Your task to perform on an android device: Open a new private window in Chrome Image 0: 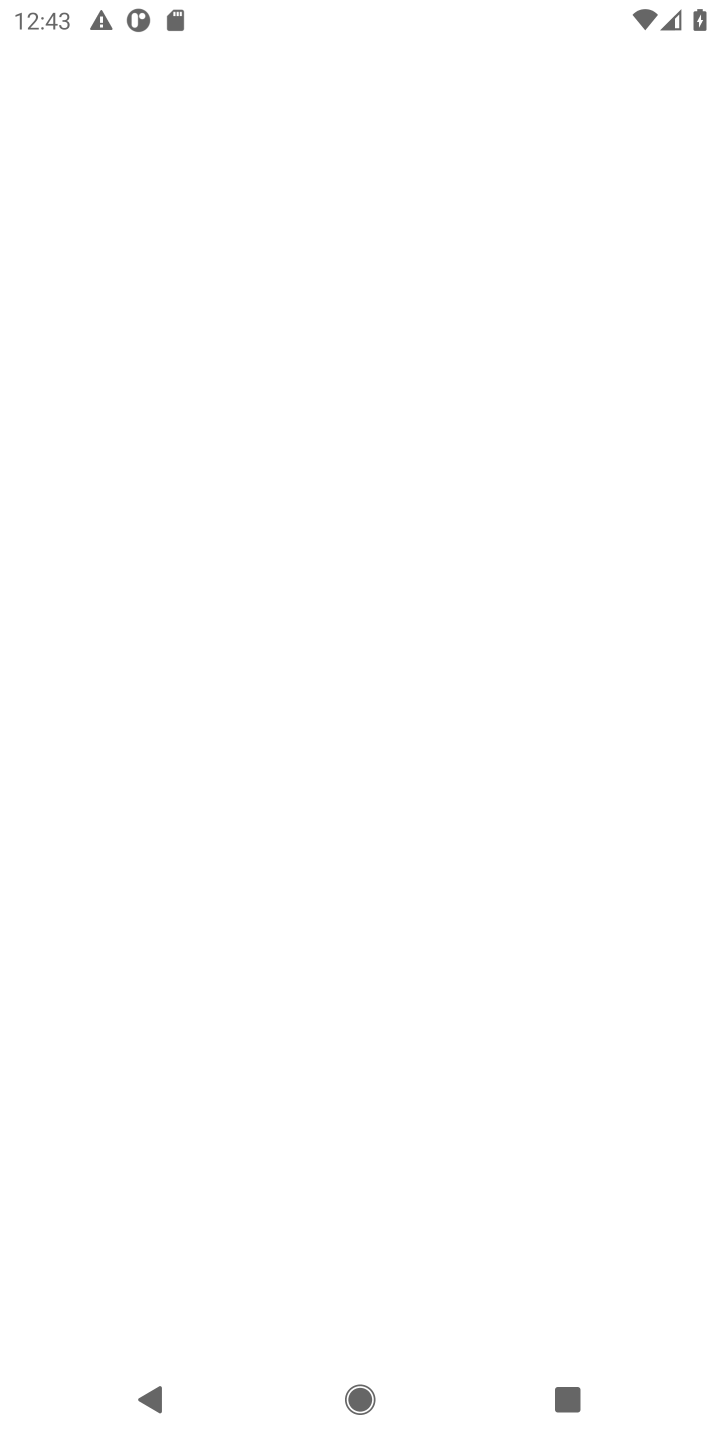
Step 0: press home button
Your task to perform on an android device: Open a new private window in Chrome Image 1: 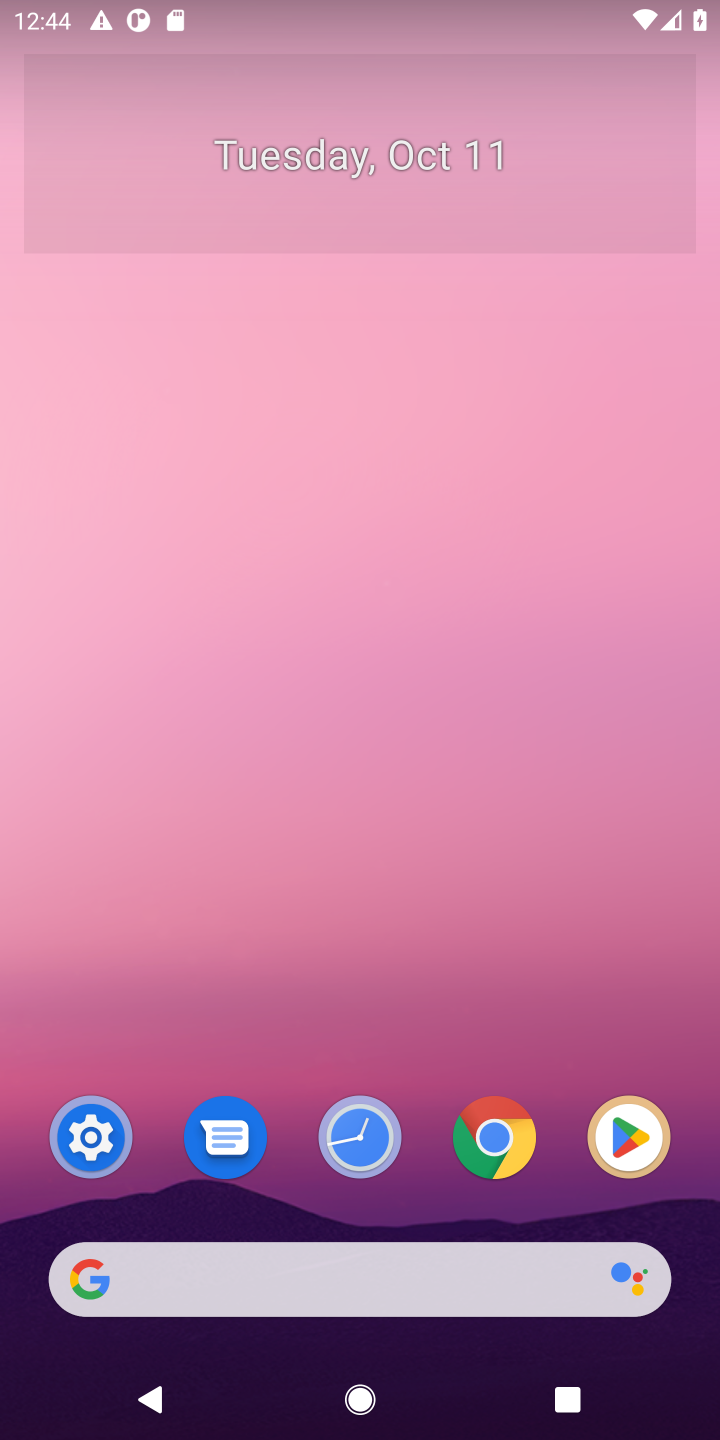
Step 1: click (497, 1151)
Your task to perform on an android device: Open a new private window in Chrome Image 2: 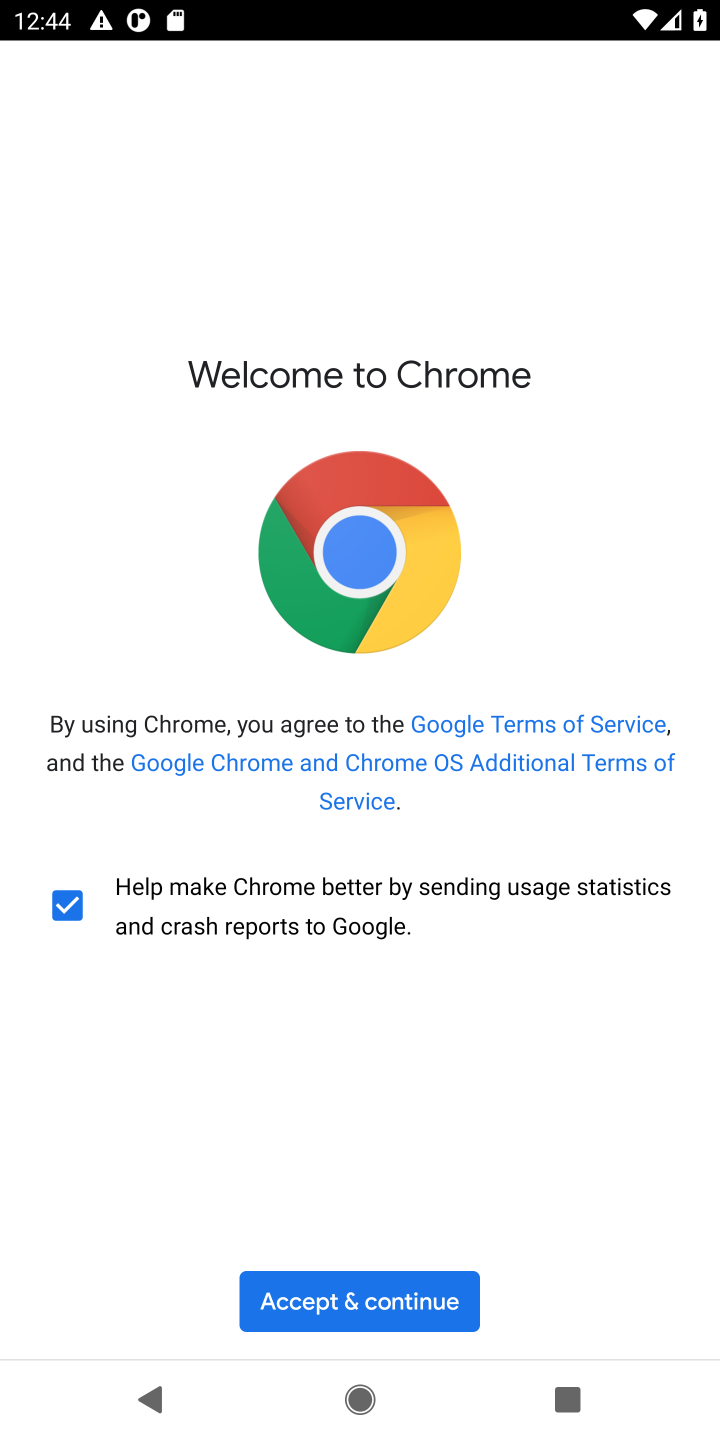
Step 2: click (408, 1291)
Your task to perform on an android device: Open a new private window in Chrome Image 3: 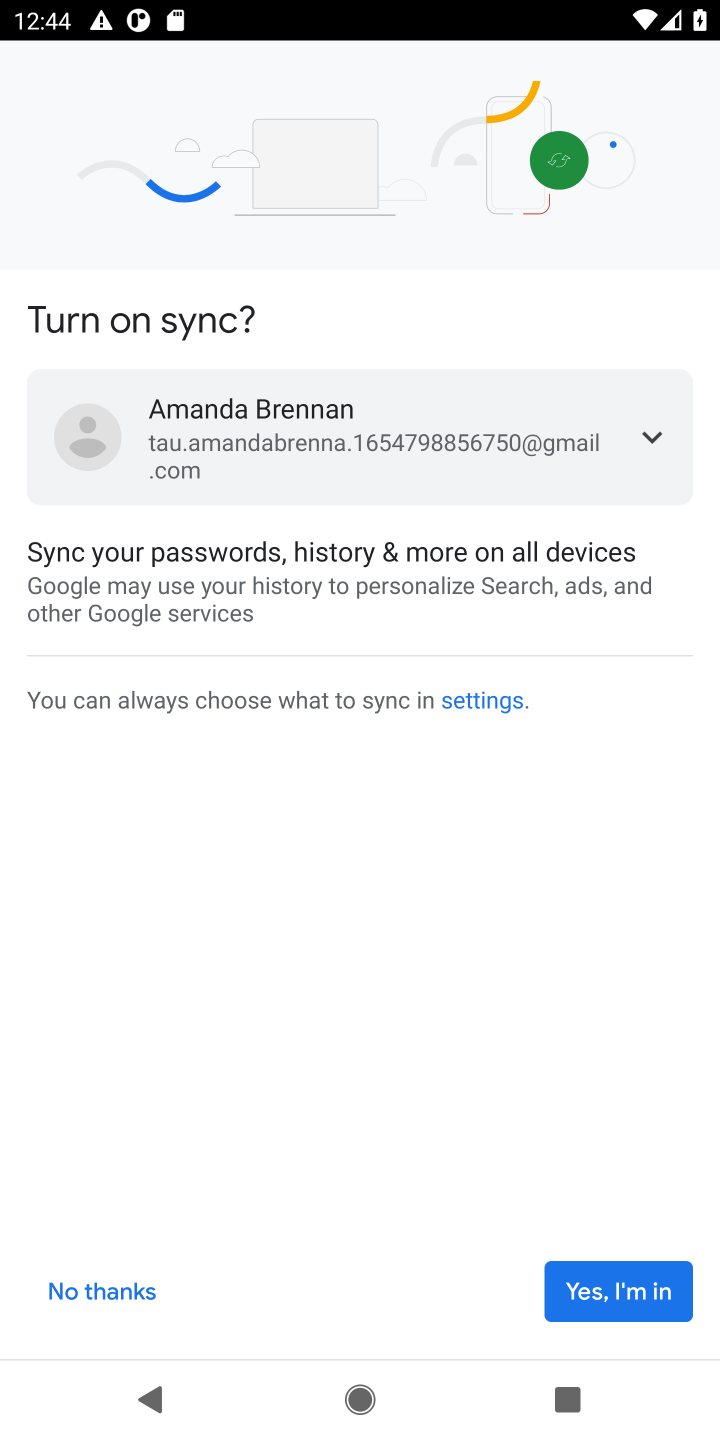
Step 3: click (596, 1291)
Your task to perform on an android device: Open a new private window in Chrome Image 4: 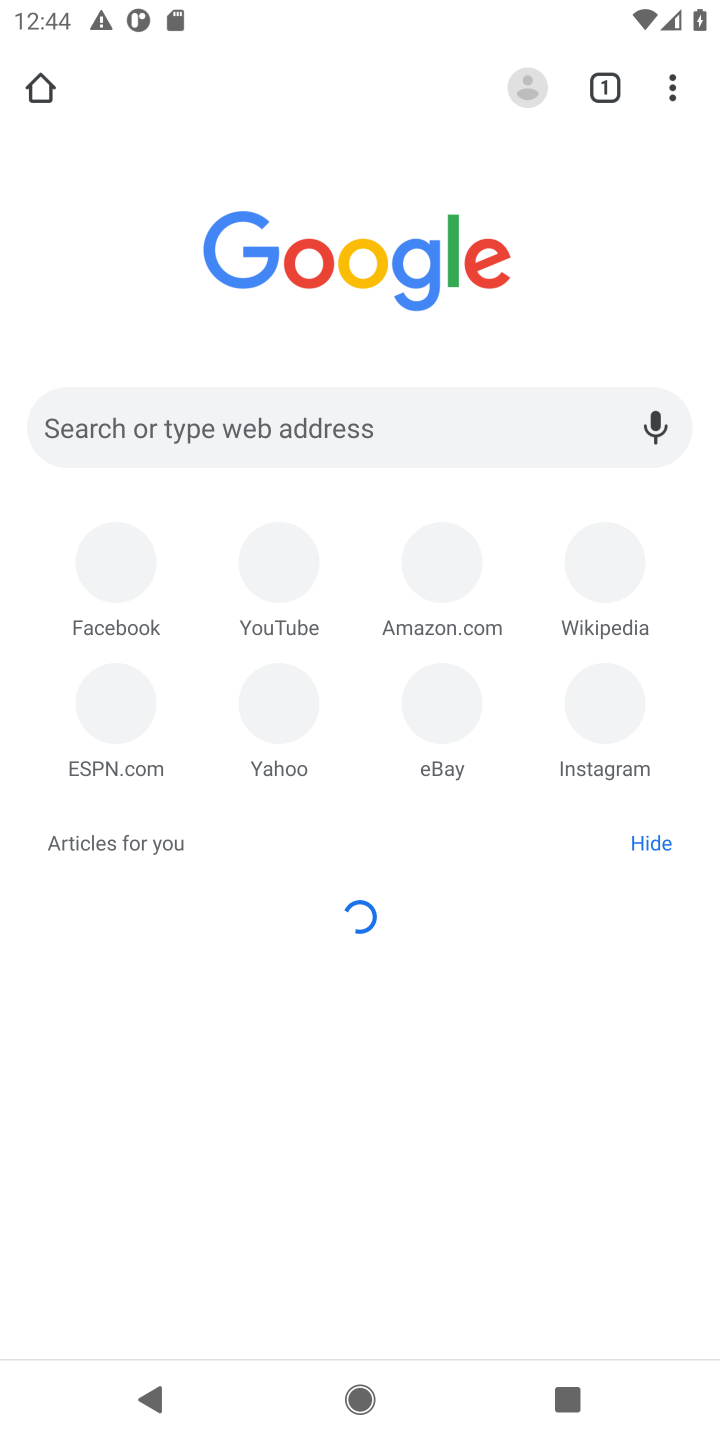
Step 4: click (605, 87)
Your task to perform on an android device: Open a new private window in Chrome Image 5: 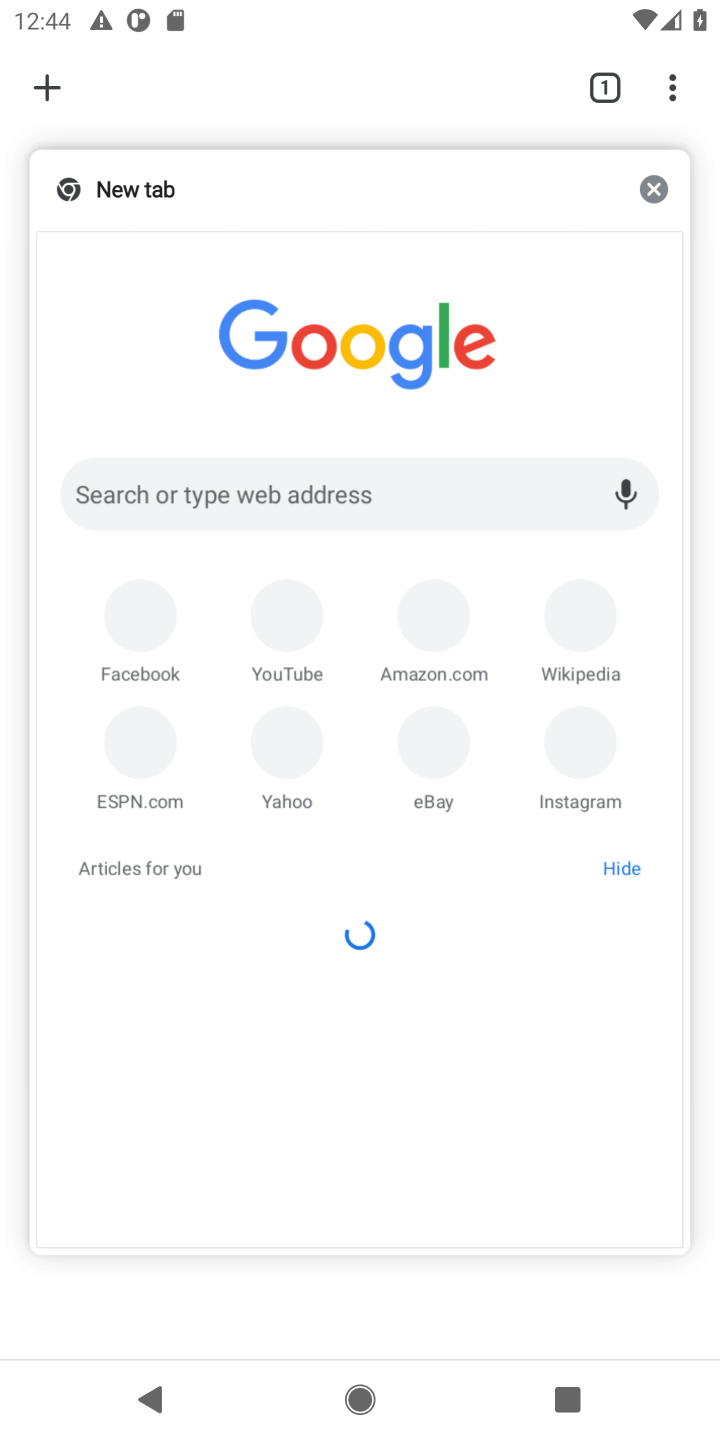
Step 5: click (59, 87)
Your task to perform on an android device: Open a new private window in Chrome Image 6: 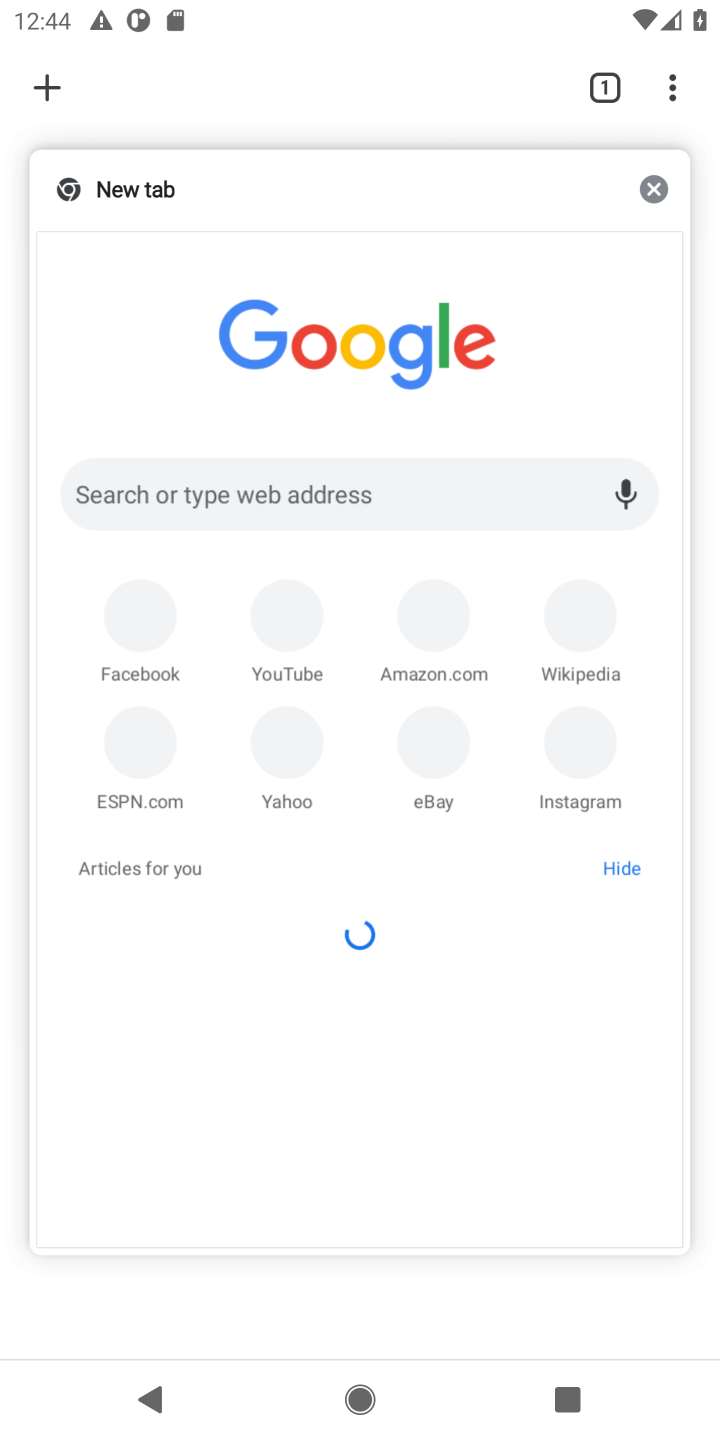
Step 6: click (41, 89)
Your task to perform on an android device: Open a new private window in Chrome Image 7: 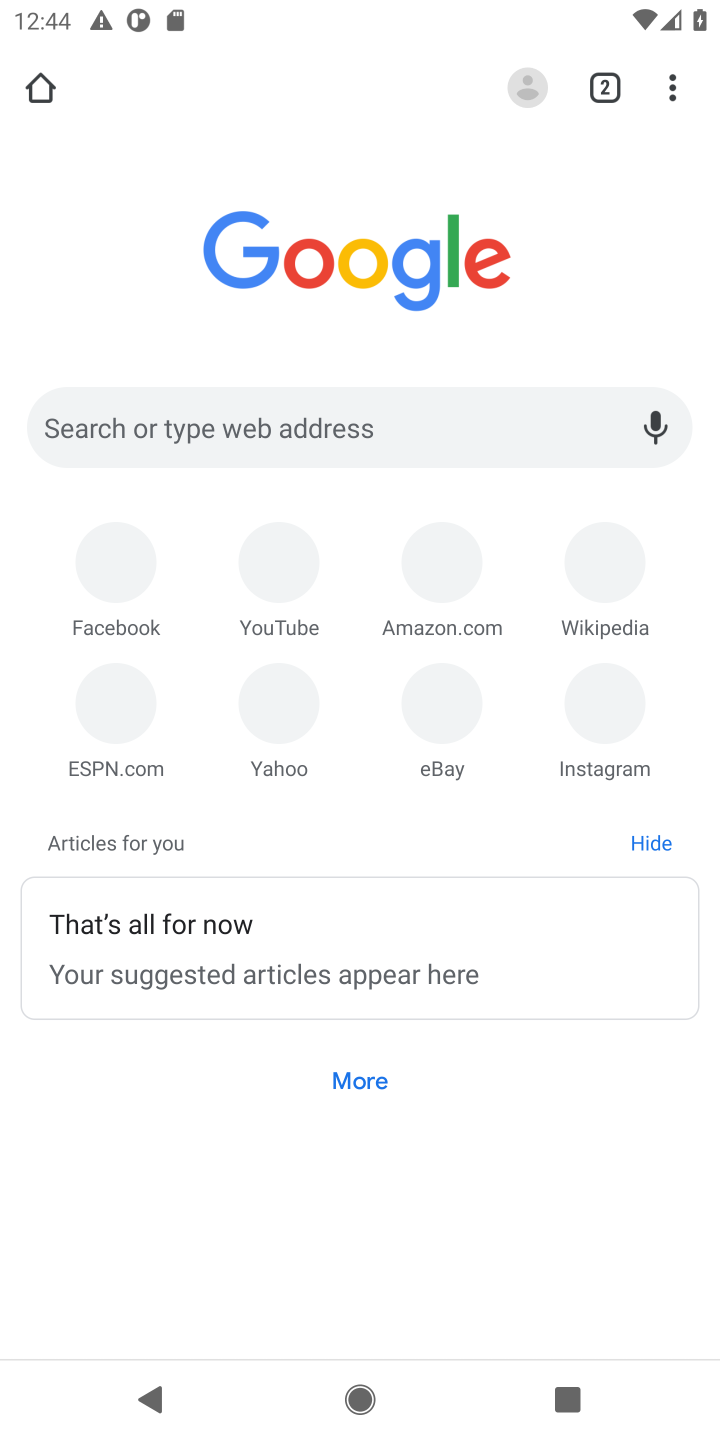
Step 7: click (312, 449)
Your task to perform on an android device: Open a new private window in Chrome Image 8: 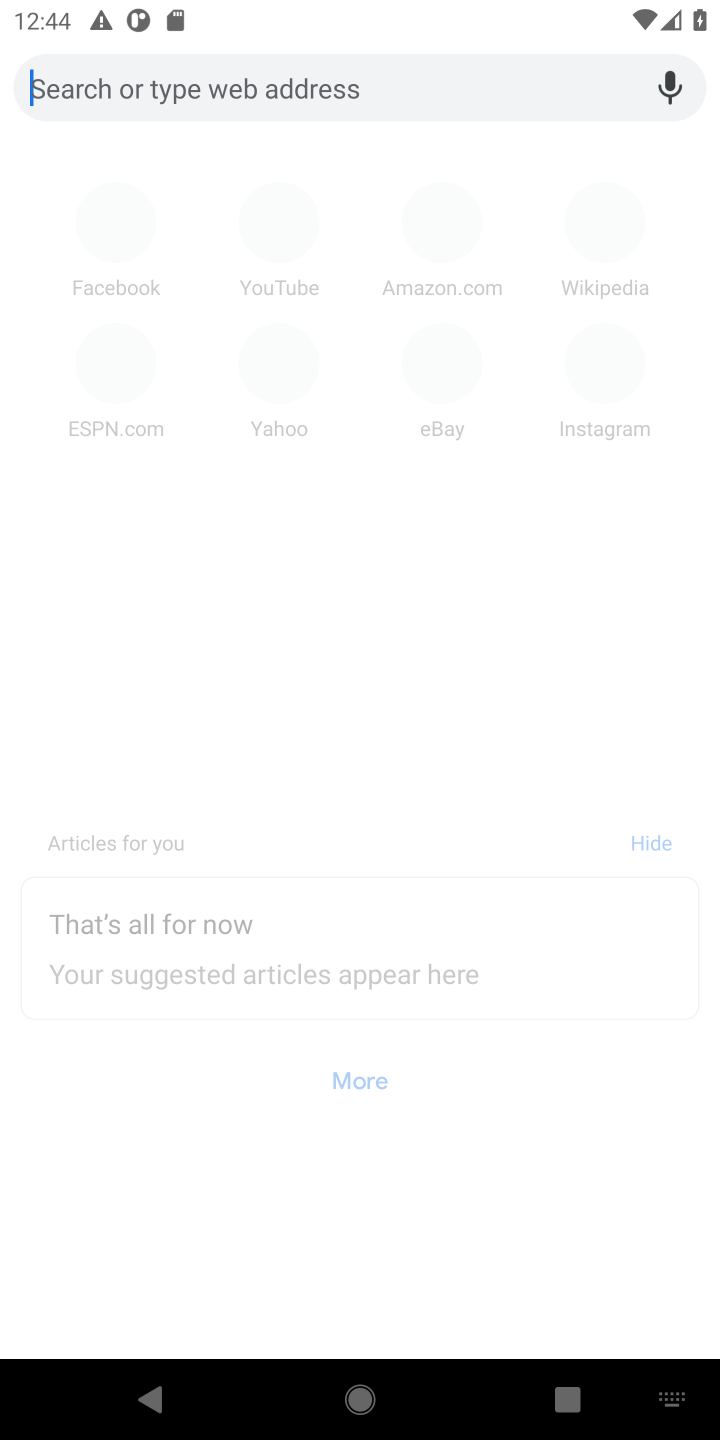
Step 8: task complete